Your task to perform on an android device: Open display settings Image 0: 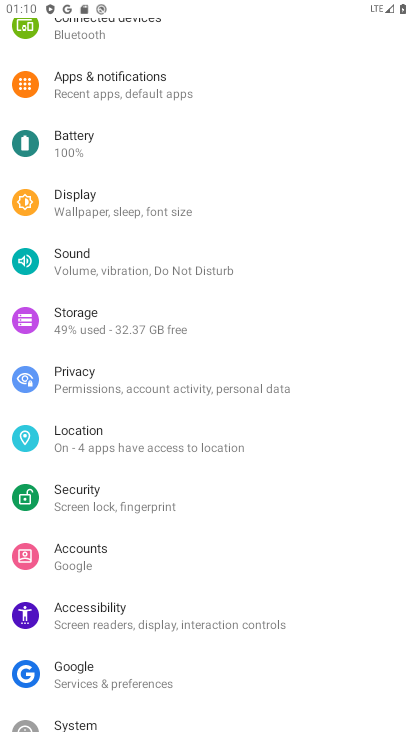
Step 0: click (157, 199)
Your task to perform on an android device: Open display settings Image 1: 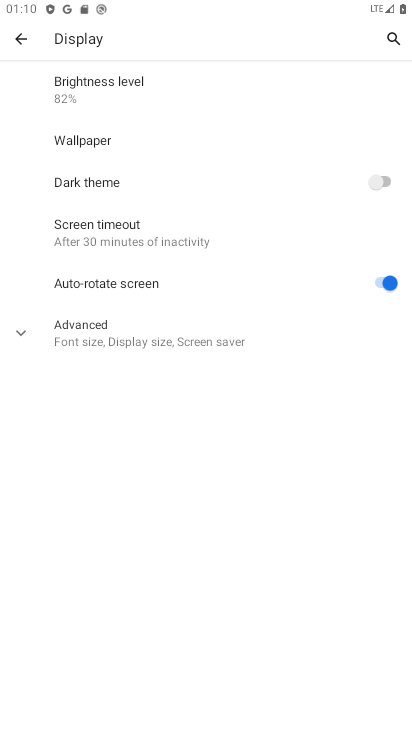
Step 1: task complete